Your task to perform on an android device: all mails in gmail Image 0: 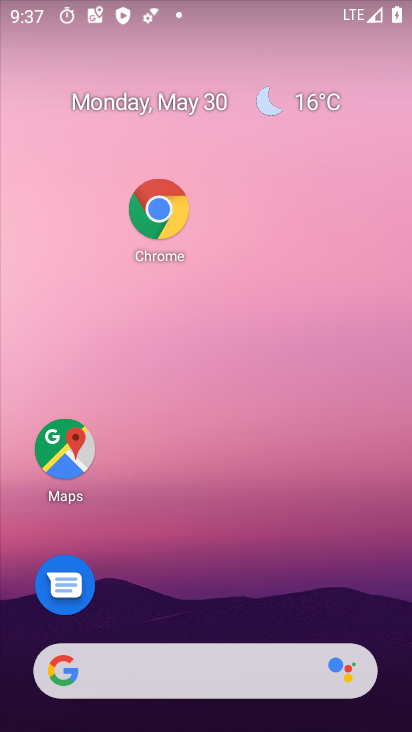
Step 0: drag from (123, 607) to (311, 35)
Your task to perform on an android device: all mails in gmail Image 1: 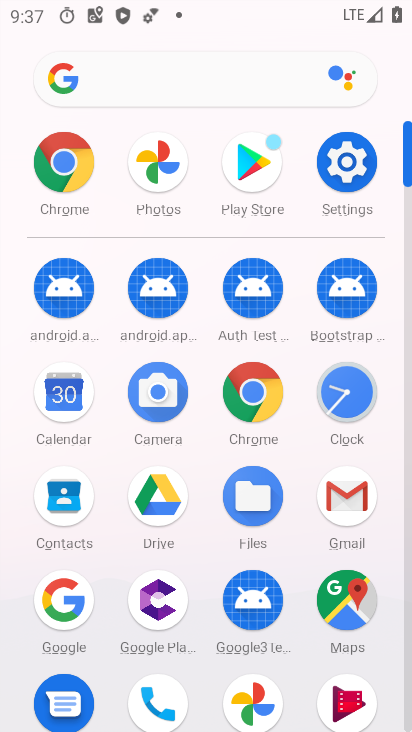
Step 1: click (330, 480)
Your task to perform on an android device: all mails in gmail Image 2: 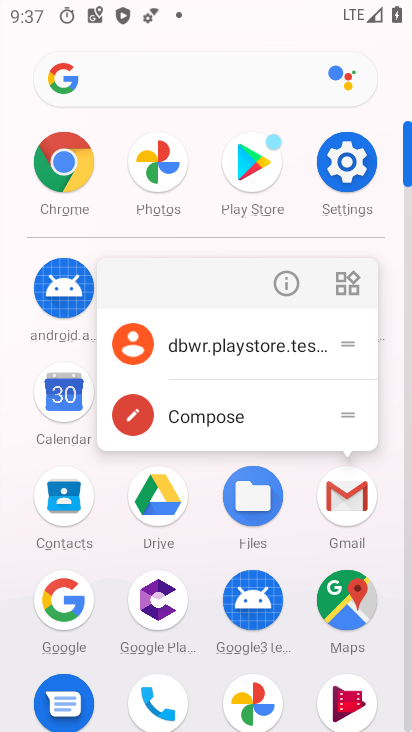
Step 2: click (280, 276)
Your task to perform on an android device: all mails in gmail Image 3: 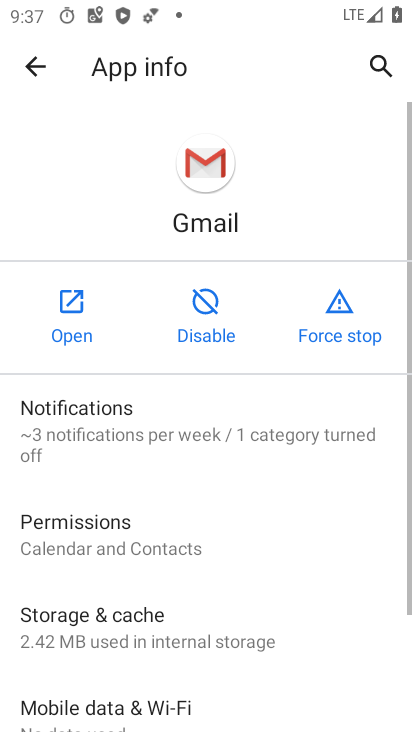
Step 3: click (62, 312)
Your task to perform on an android device: all mails in gmail Image 4: 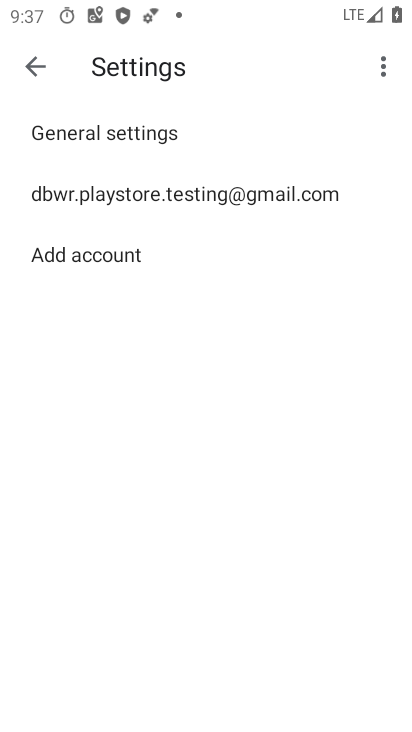
Step 4: click (29, 71)
Your task to perform on an android device: all mails in gmail Image 5: 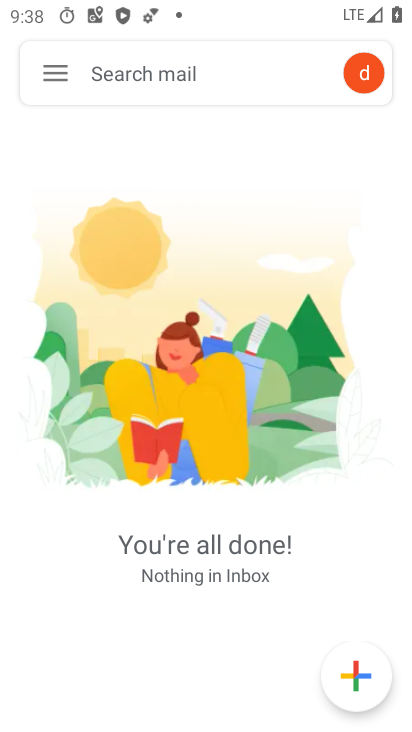
Step 5: click (57, 56)
Your task to perform on an android device: all mails in gmail Image 6: 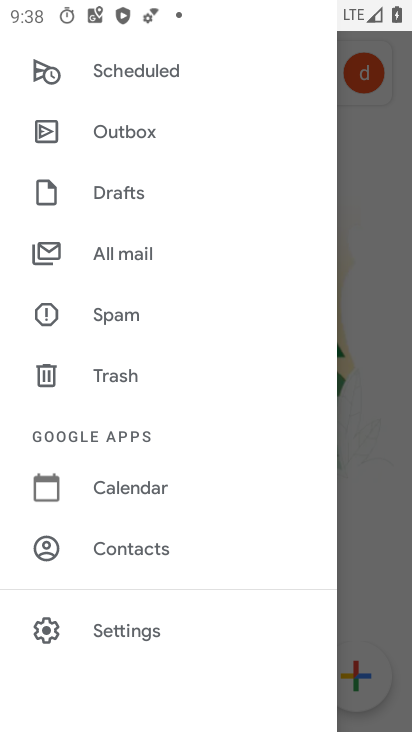
Step 6: click (83, 242)
Your task to perform on an android device: all mails in gmail Image 7: 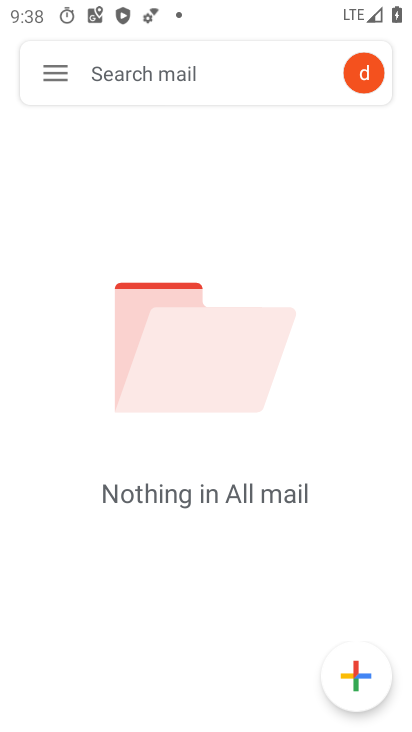
Step 7: task complete